Your task to perform on an android device: open device folders in google photos Image 0: 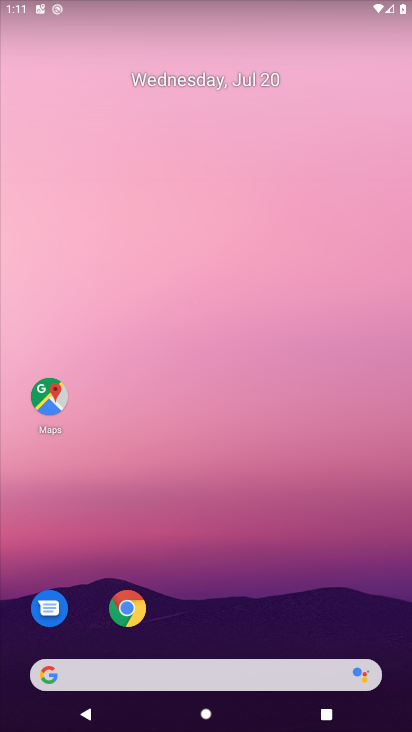
Step 0: drag from (235, 653) to (176, 140)
Your task to perform on an android device: open device folders in google photos Image 1: 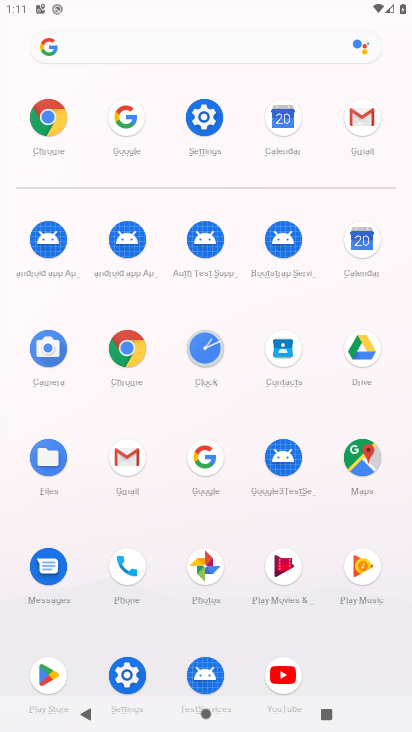
Step 1: click (205, 565)
Your task to perform on an android device: open device folders in google photos Image 2: 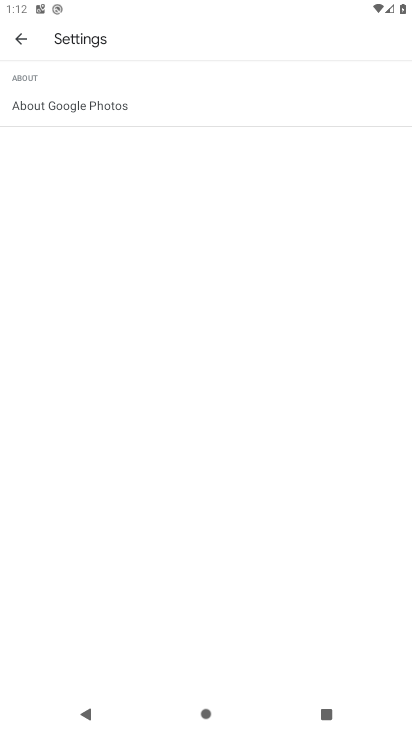
Step 2: click (19, 39)
Your task to perform on an android device: open device folders in google photos Image 3: 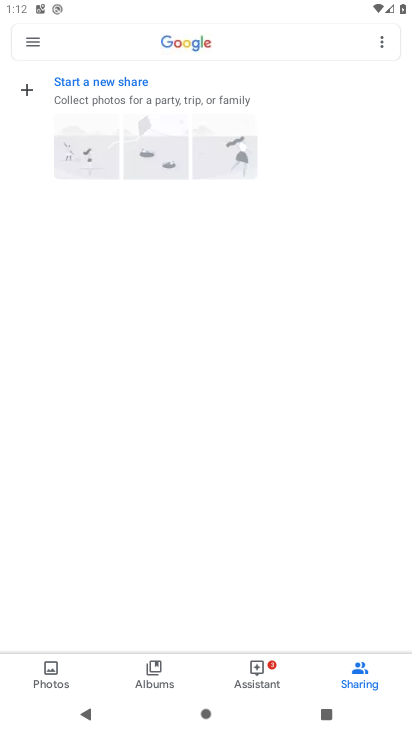
Step 3: click (35, 37)
Your task to perform on an android device: open device folders in google photos Image 4: 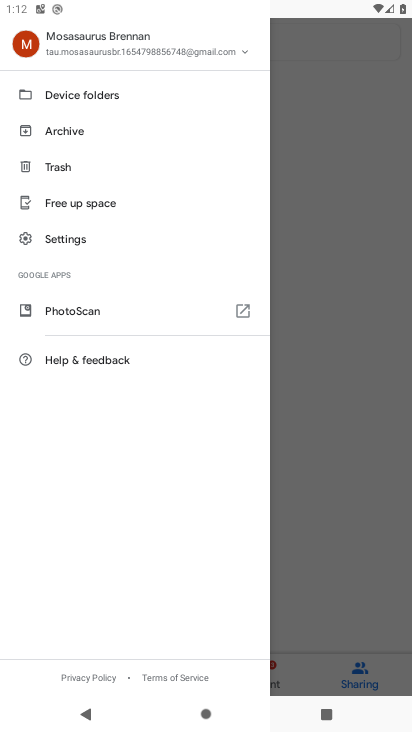
Step 4: click (59, 98)
Your task to perform on an android device: open device folders in google photos Image 5: 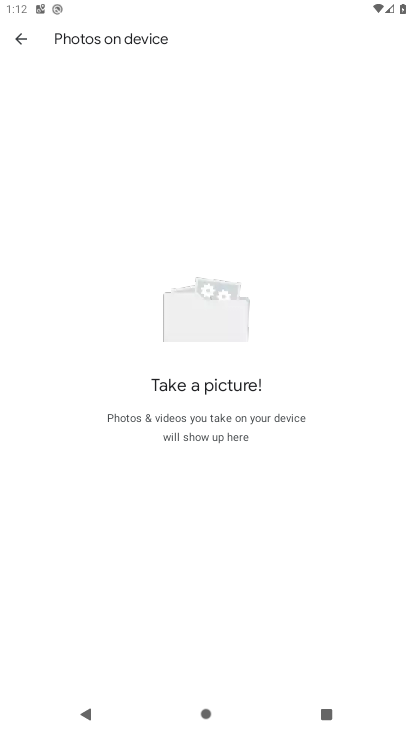
Step 5: task complete